Your task to perform on an android device: add a contact Image 0: 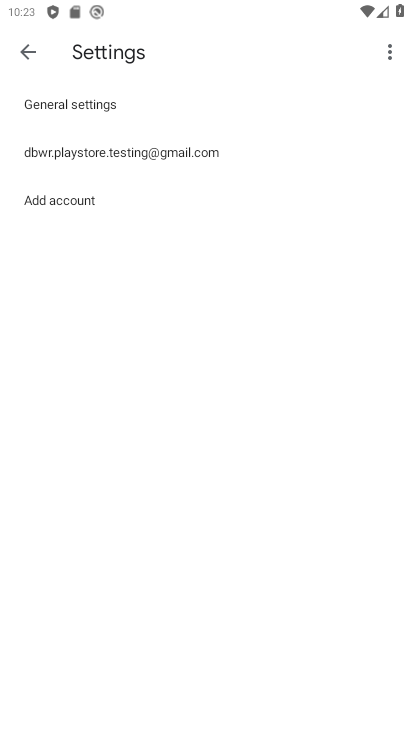
Step 0: press home button
Your task to perform on an android device: add a contact Image 1: 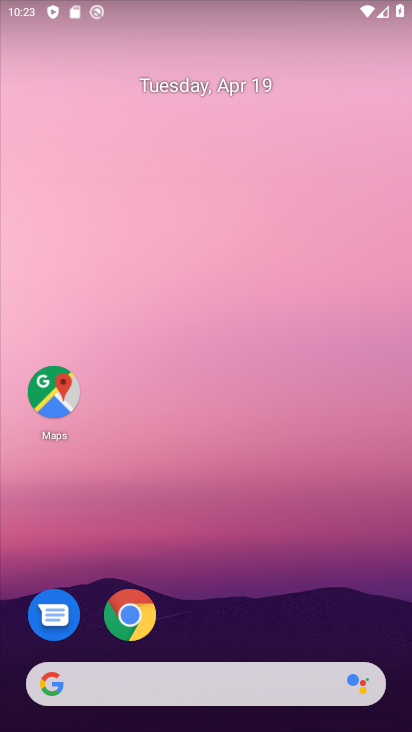
Step 1: drag from (272, 580) to (266, 129)
Your task to perform on an android device: add a contact Image 2: 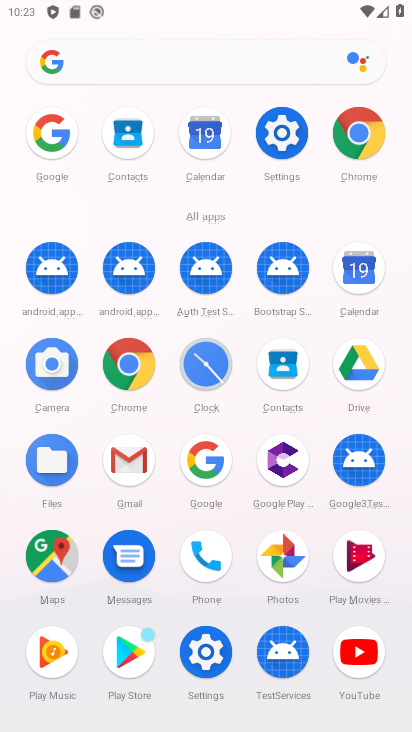
Step 2: click (283, 361)
Your task to perform on an android device: add a contact Image 3: 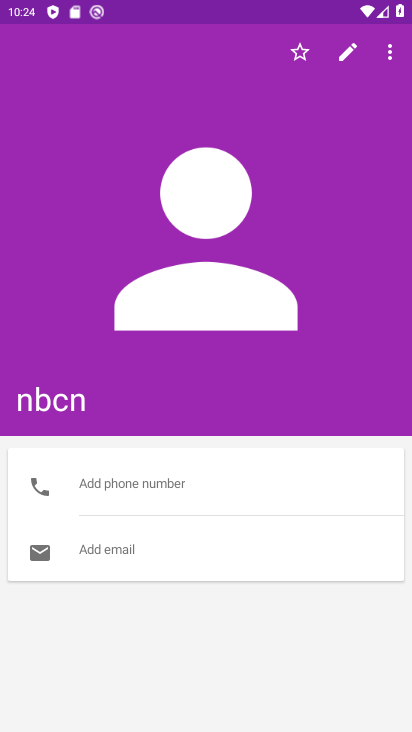
Step 3: press back button
Your task to perform on an android device: add a contact Image 4: 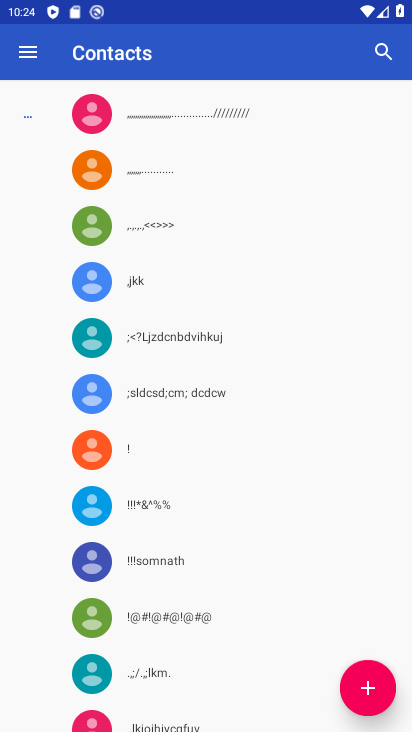
Step 4: click (376, 677)
Your task to perform on an android device: add a contact Image 5: 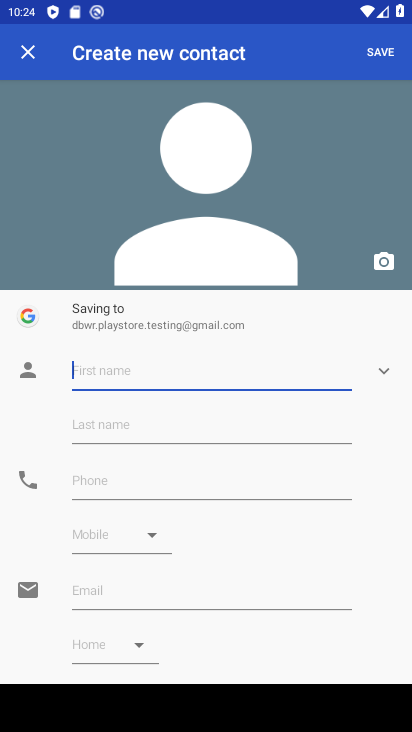
Step 5: type "tehx"
Your task to perform on an android device: add a contact Image 6: 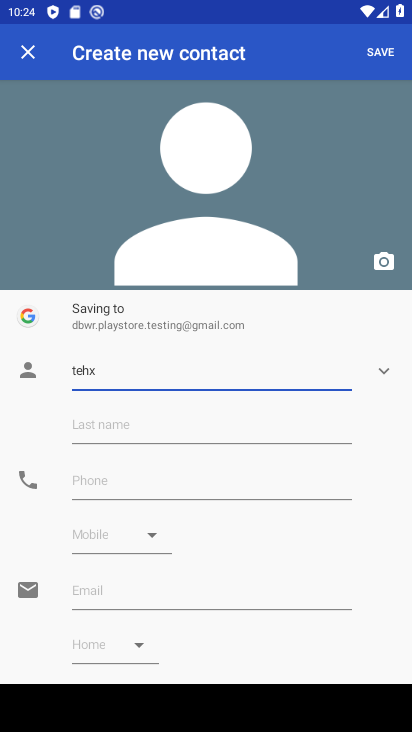
Step 6: click (380, 50)
Your task to perform on an android device: add a contact Image 7: 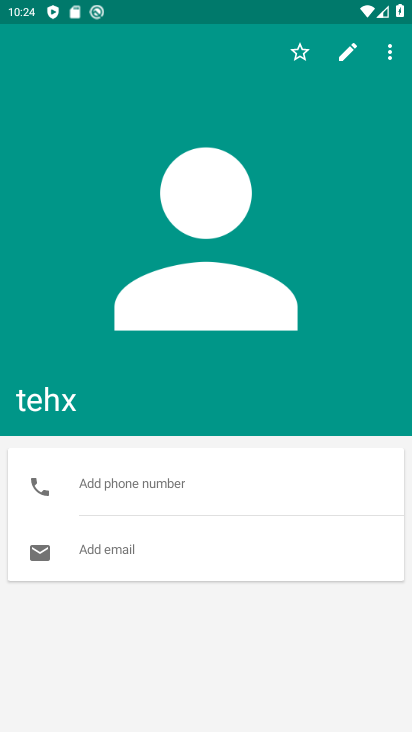
Step 7: task complete